Your task to perform on an android device: change the clock display to analog Image 0: 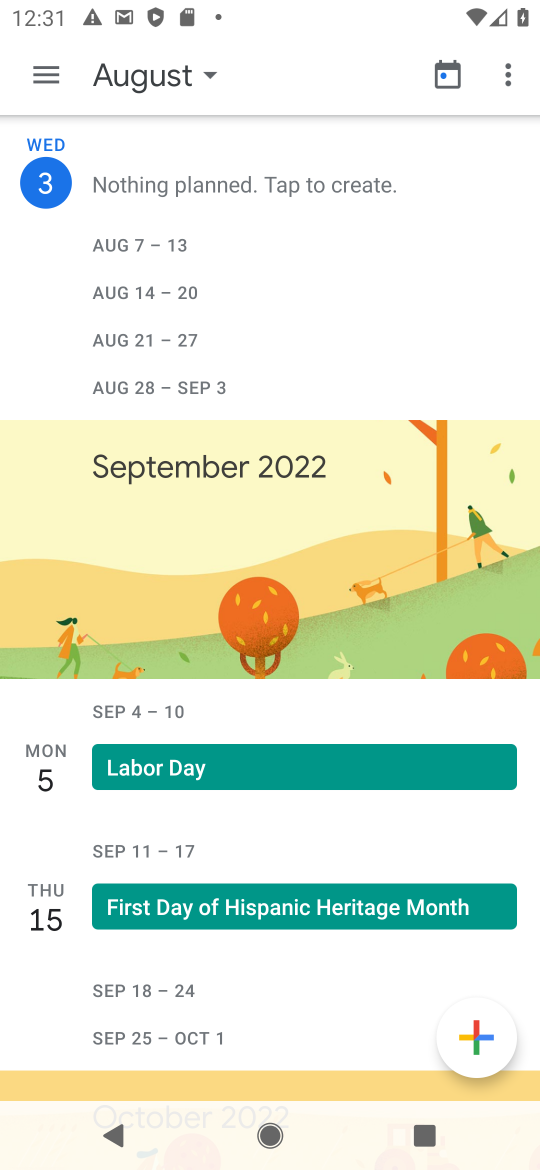
Step 0: drag from (262, 981) to (262, 231)
Your task to perform on an android device: change the clock display to analog Image 1: 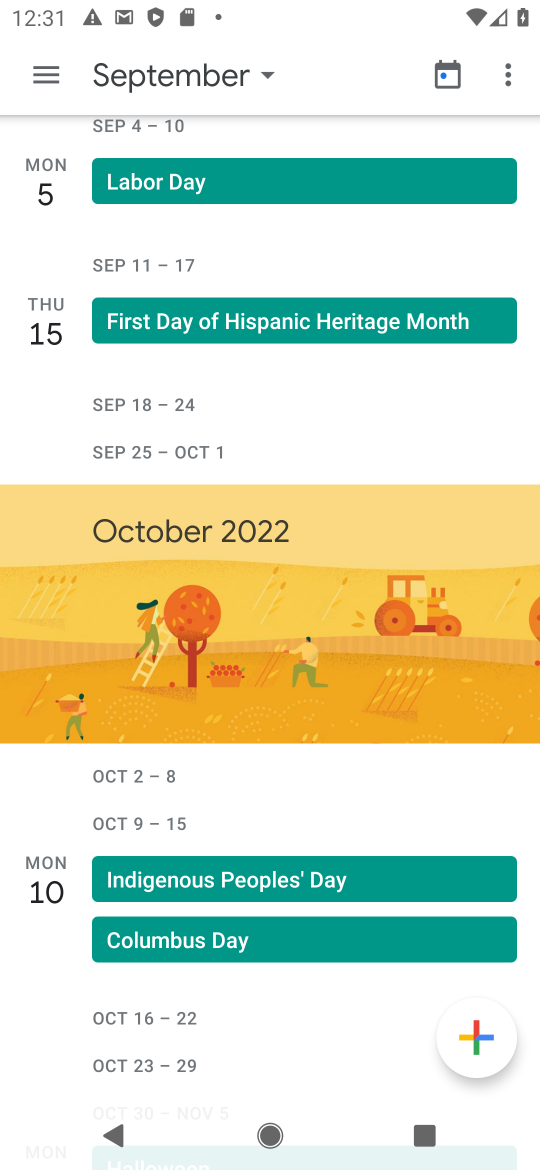
Step 1: drag from (288, 870) to (268, 449)
Your task to perform on an android device: change the clock display to analog Image 2: 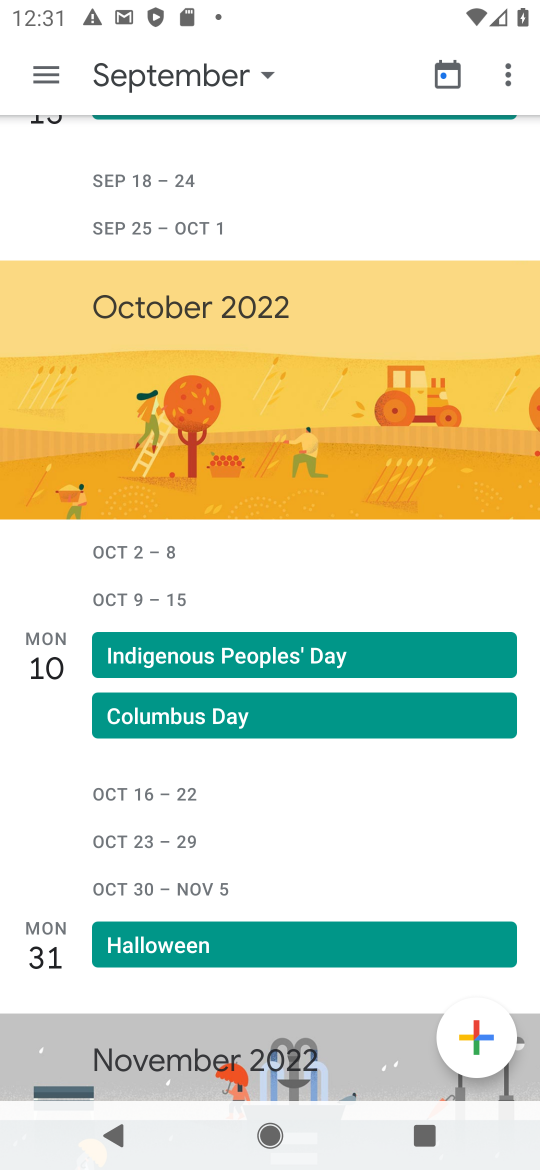
Step 2: drag from (298, 867) to (309, 271)
Your task to perform on an android device: change the clock display to analog Image 3: 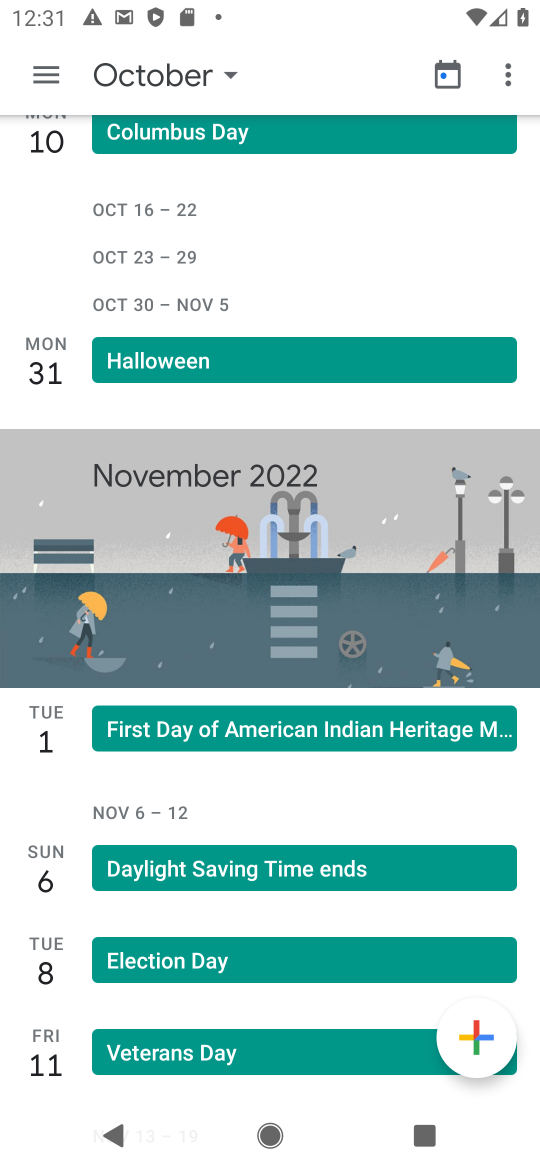
Step 3: drag from (311, 269) to (338, 1091)
Your task to perform on an android device: change the clock display to analog Image 4: 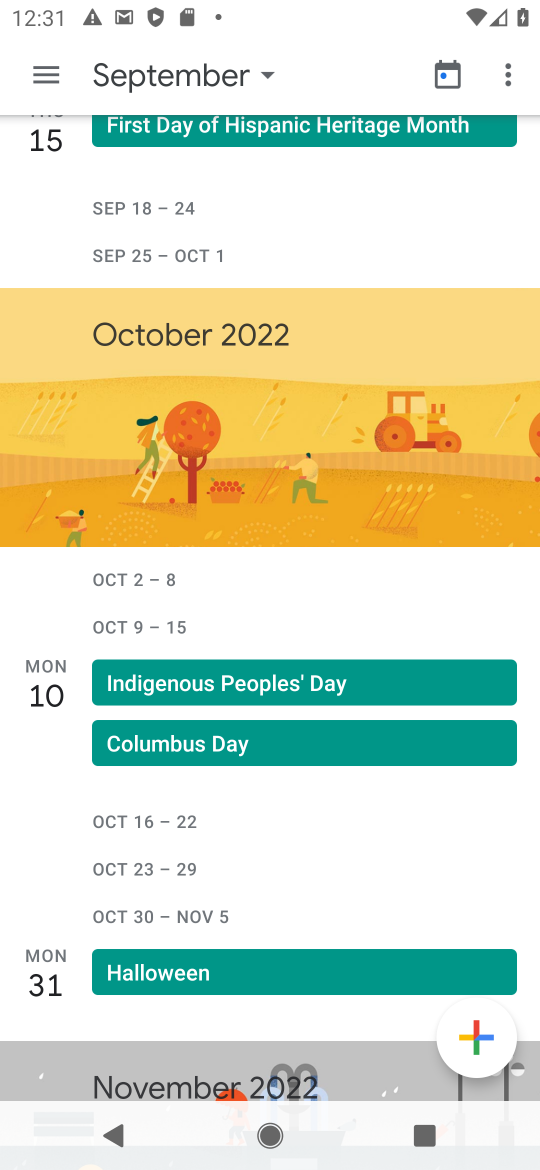
Step 4: click (223, 85)
Your task to perform on an android device: change the clock display to analog Image 5: 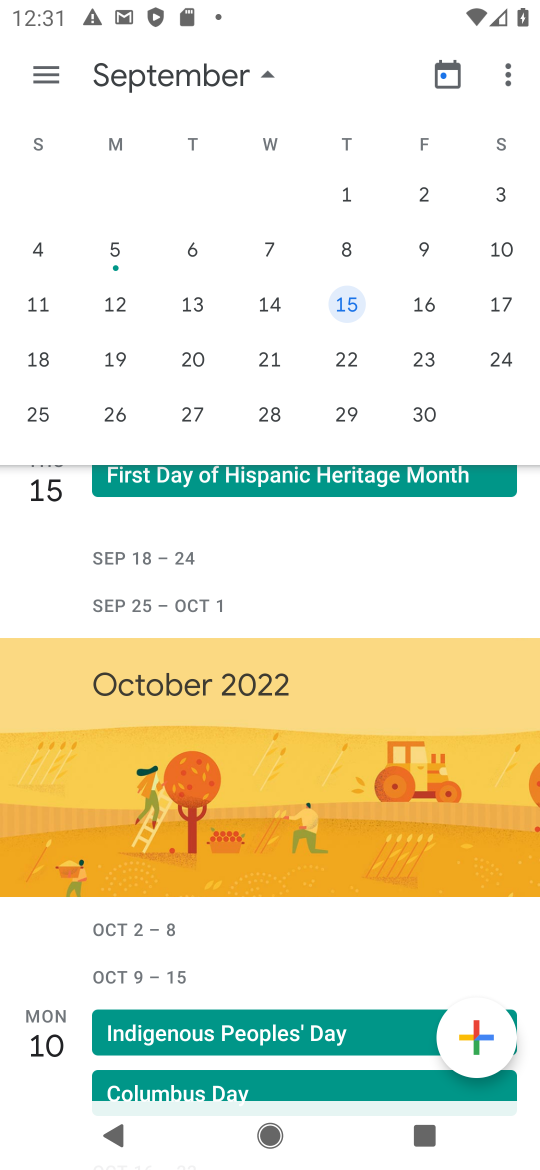
Step 5: press home button
Your task to perform on an android device: change the clock display to analog Image 6: 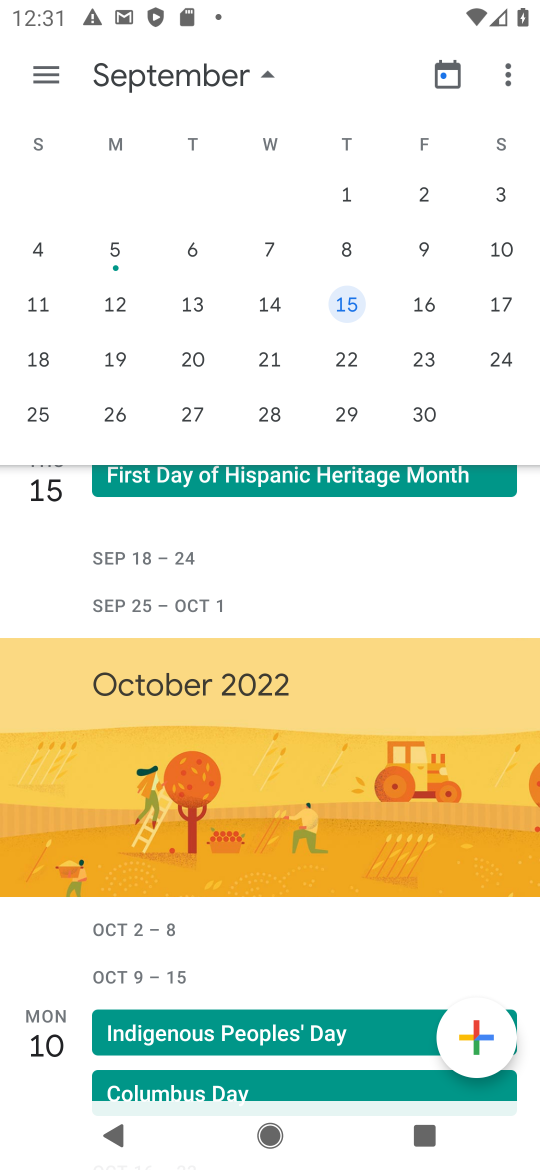
Step 6: drag from (262, 935) to (357, 3)
Your task to perform on an android device: change the clock display to analog Image 7: 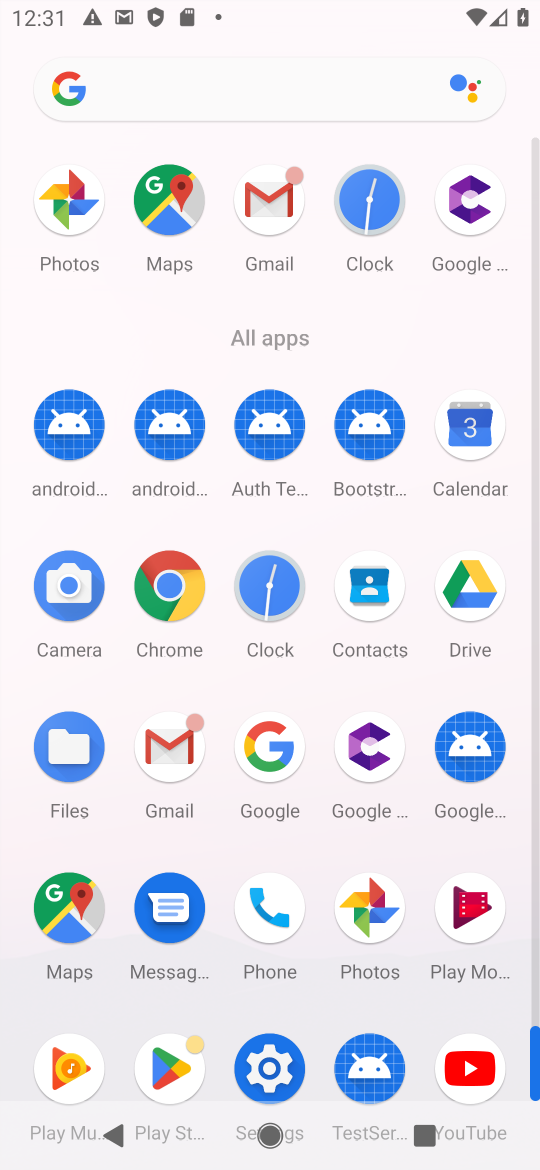
Step 7: click (268, 1061)
Your task to perform on an android device: change the clock display to analog Image 8: 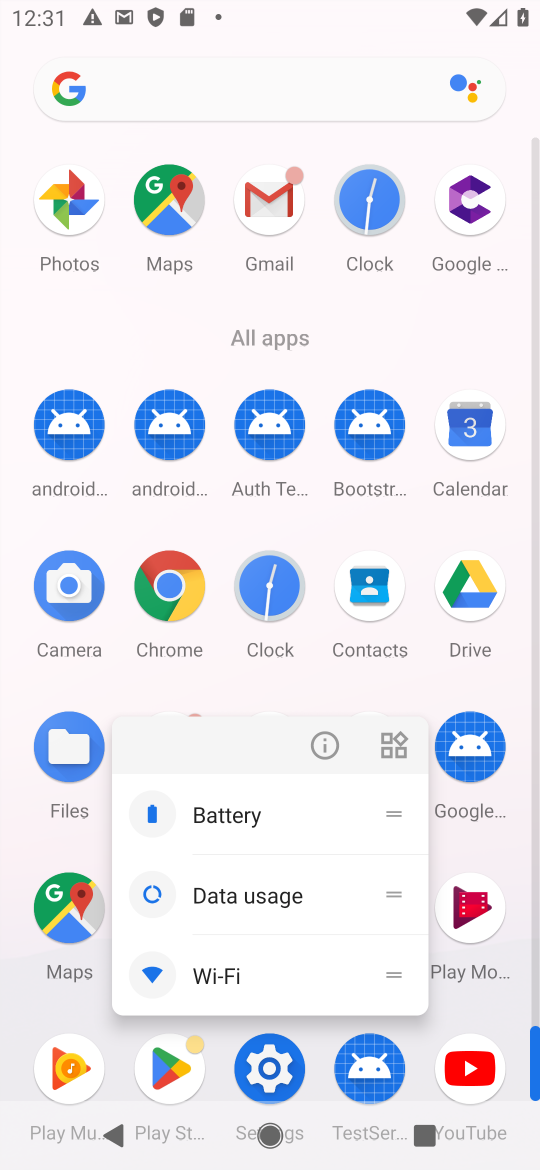
Step 8: click (266, 596)
Your task to perform on an android device: change the clock display to analog Image 9: 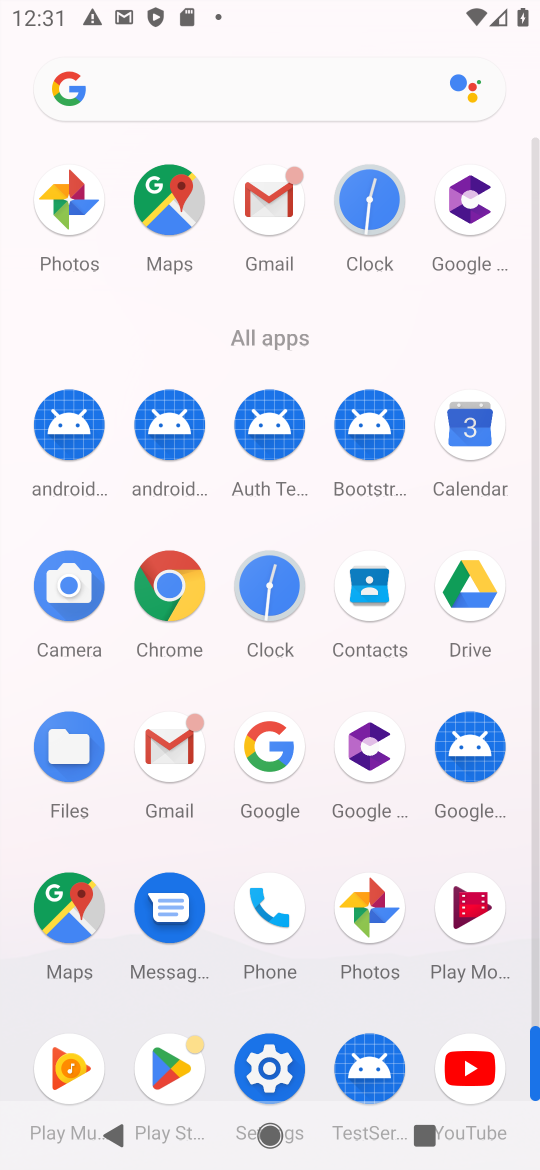
Step 9: click (273, 1054)
Your task to perform on an android device: change the clock display to analog Image 10: 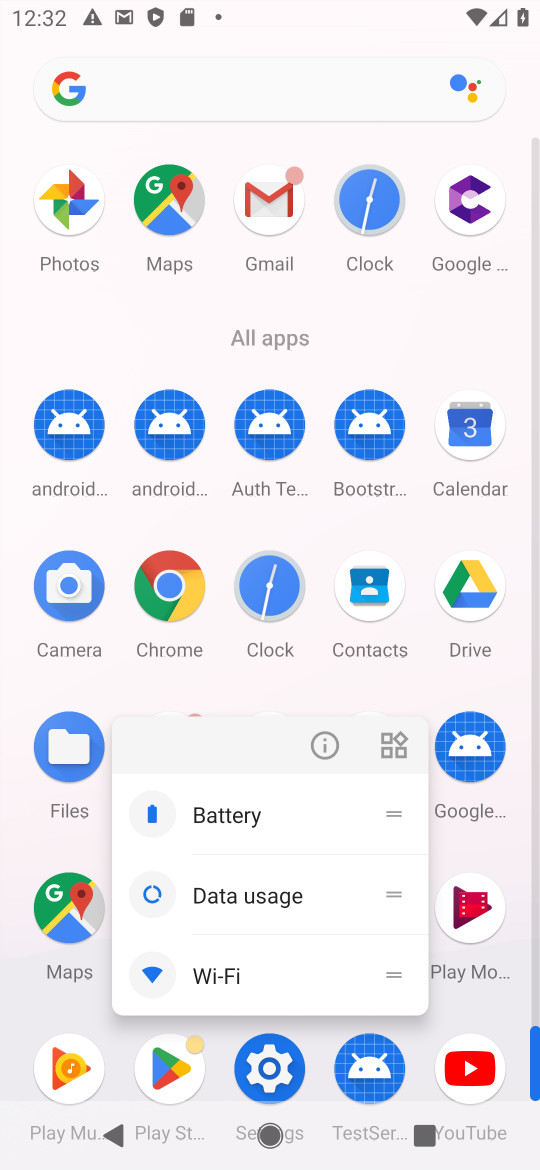
Step 10: click (315, 752)
Your task to perform on an android device: change the clock display to analog Image 11: 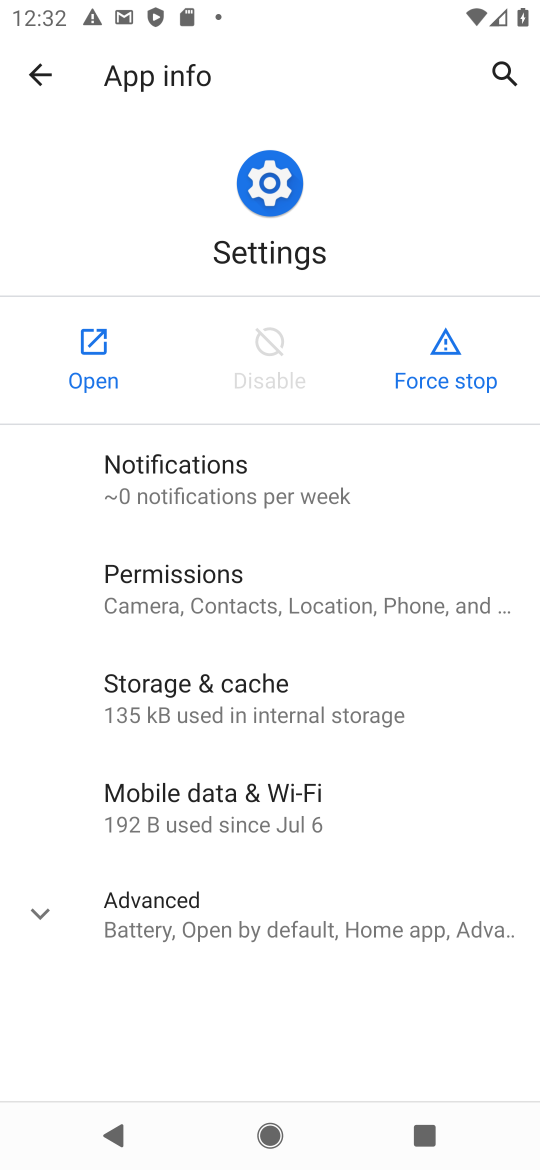
Step 11: click (75, 331)
Your task to perform on an android device: change the clock display to analog Image 12: 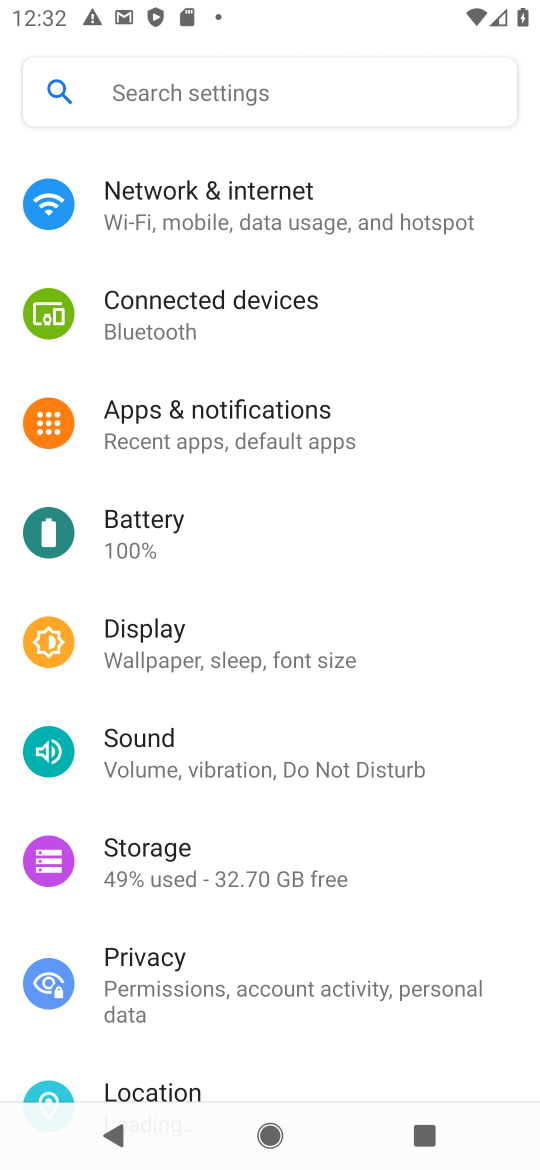
Step 12: click (235, 464)
Your task to perform on an android device: change the clock display to analog Image 13: 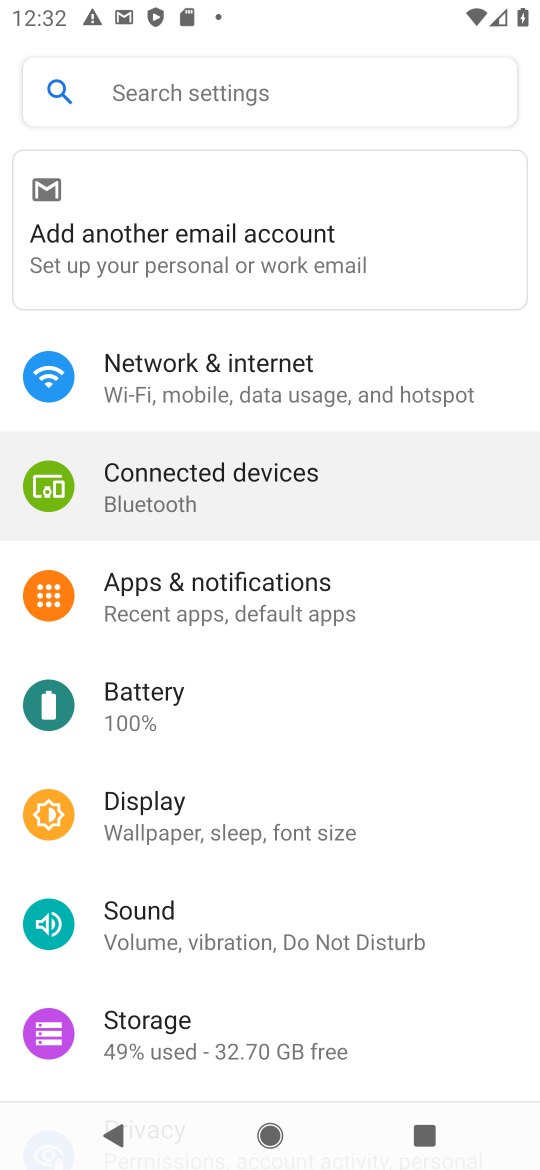
Step 13: drag from (271, 1035) to (331, 284)
Your task to perform on an android device: change the clock display to analog Image 14: 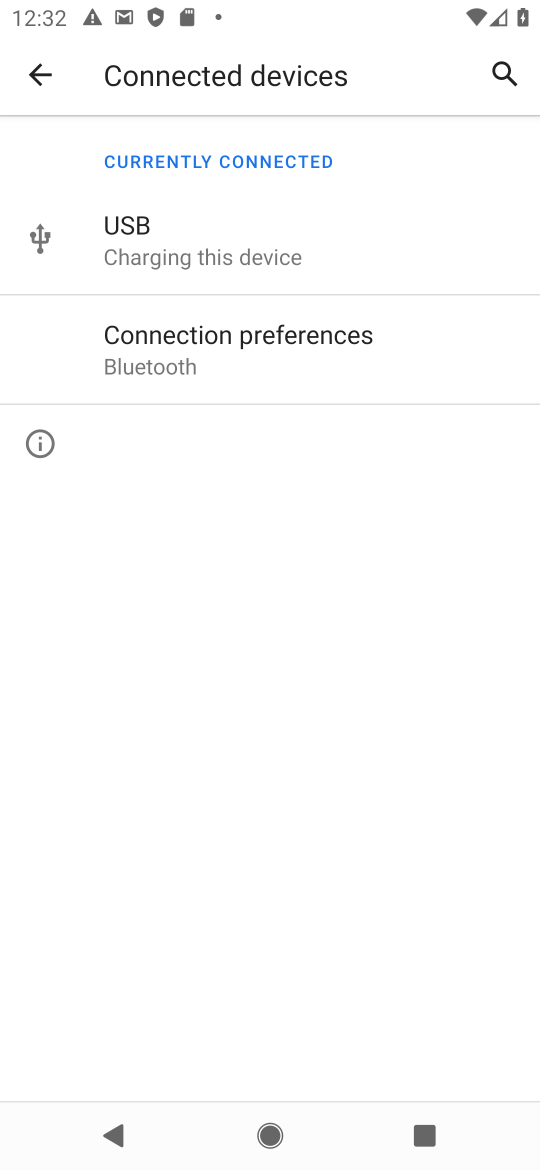
Step 14: press back button
Your task to perform on an android device: change the clock display to analog Image 15: 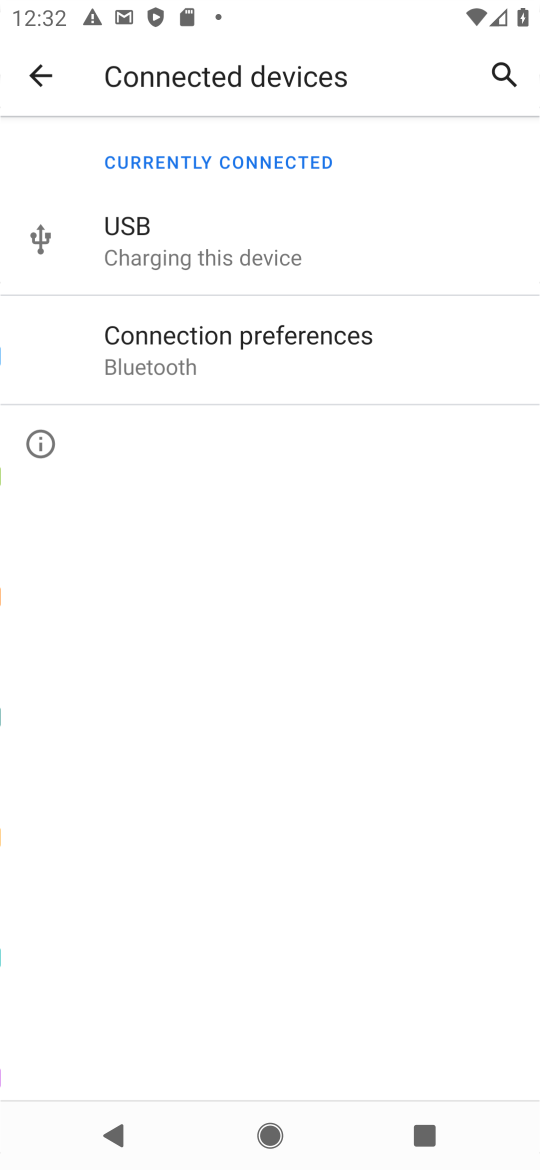
Step 15: click (303, 415)
Your task to perform on an android device: change the clock display to analog Image 16: 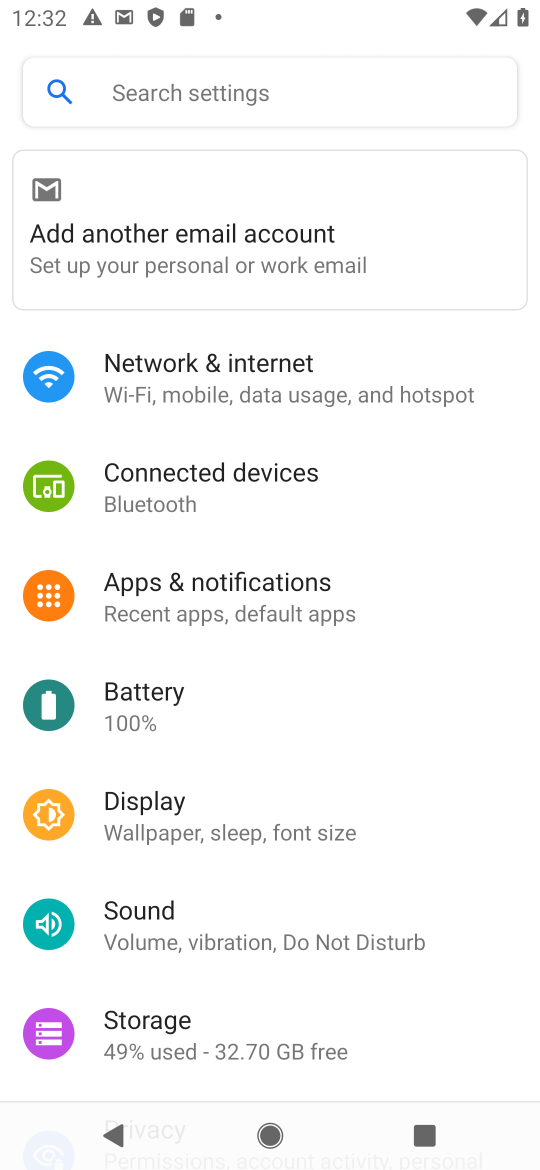
Step 16: drag from (329, 806) to (338, 433)
Your task to perform on an android device: change the clock display to analog Image 17: 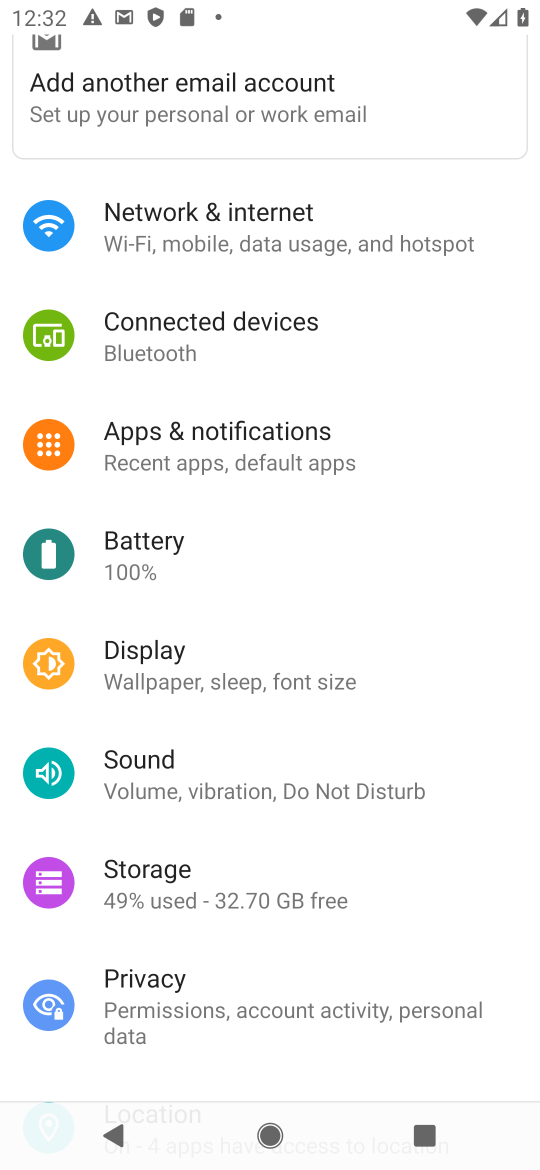
Step 17: drag from (234, 921) to (265, 689)
Your task to perform on an android device: change the clock display to analog Image 18: 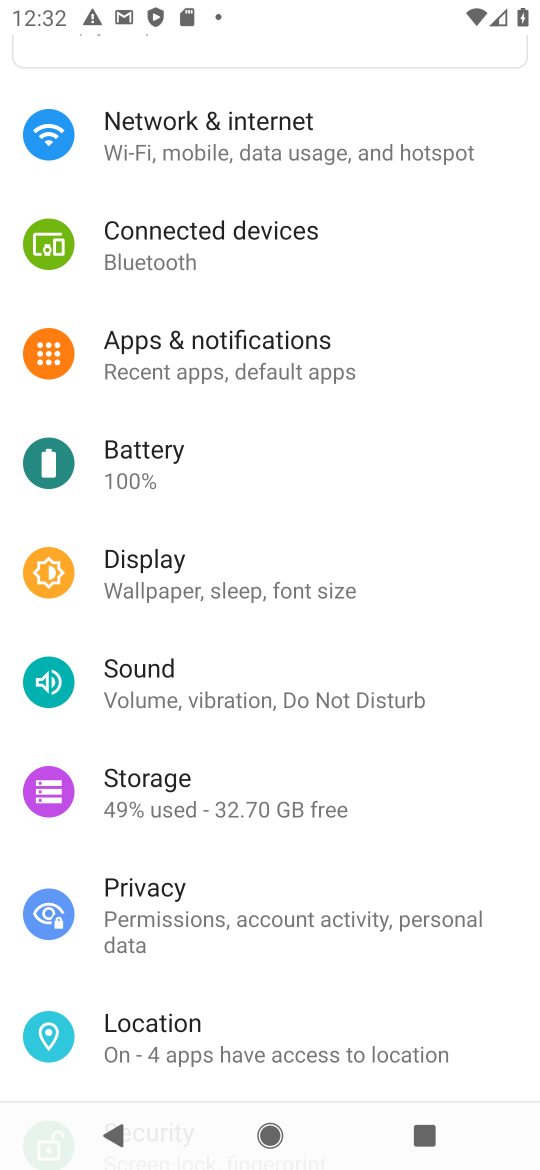
Step 18: drag from (216, 638) to (237, 1133)
Your task to perform on an android device: change the clock display to analog Image 19: 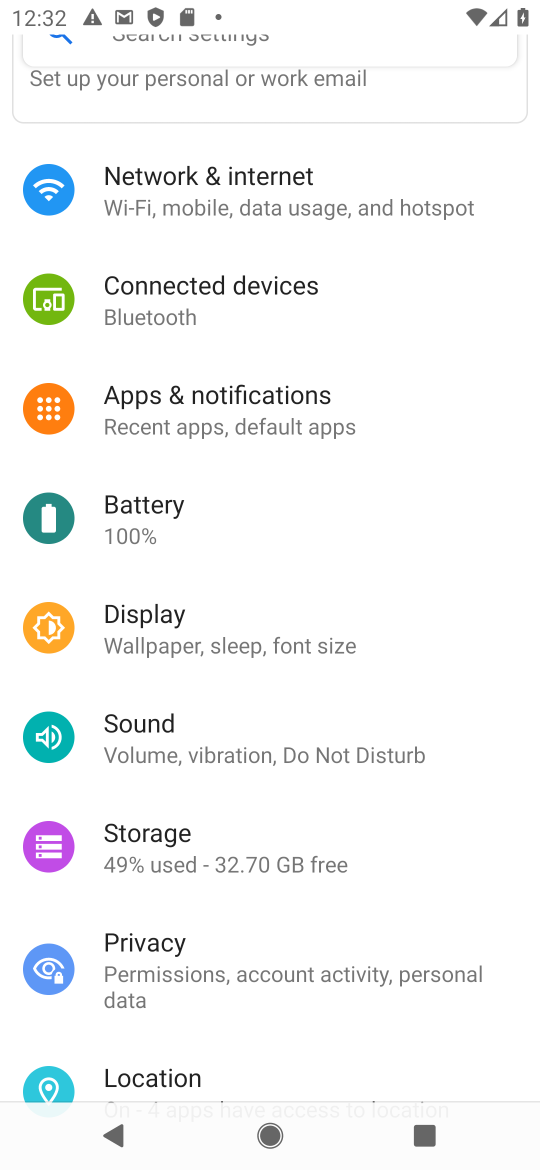
Step 19: drag from (312, 820) to (502, 1167)
Your task to perform on an android device: change the clock display to analog Image 20: 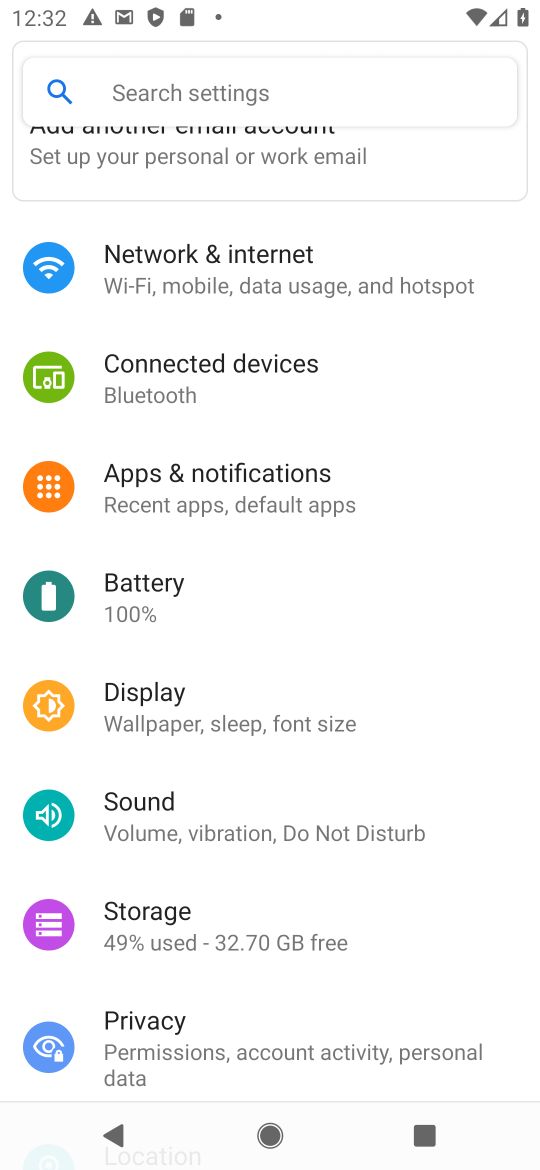
Step 20: drag from (307, 1027) to (321, 451)
Your task to perform on an android device: change the clock display to analog Image 21: 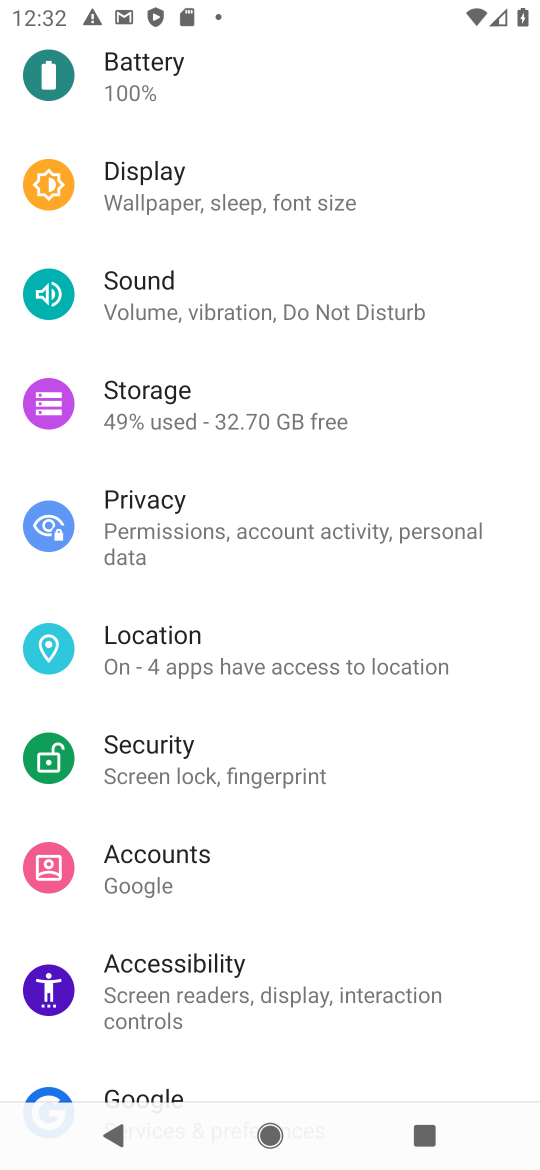
Step 21: drag from (346, 663) to (431, 1166)
Your task to perform on an android device: change the clock display to analog Image 22: 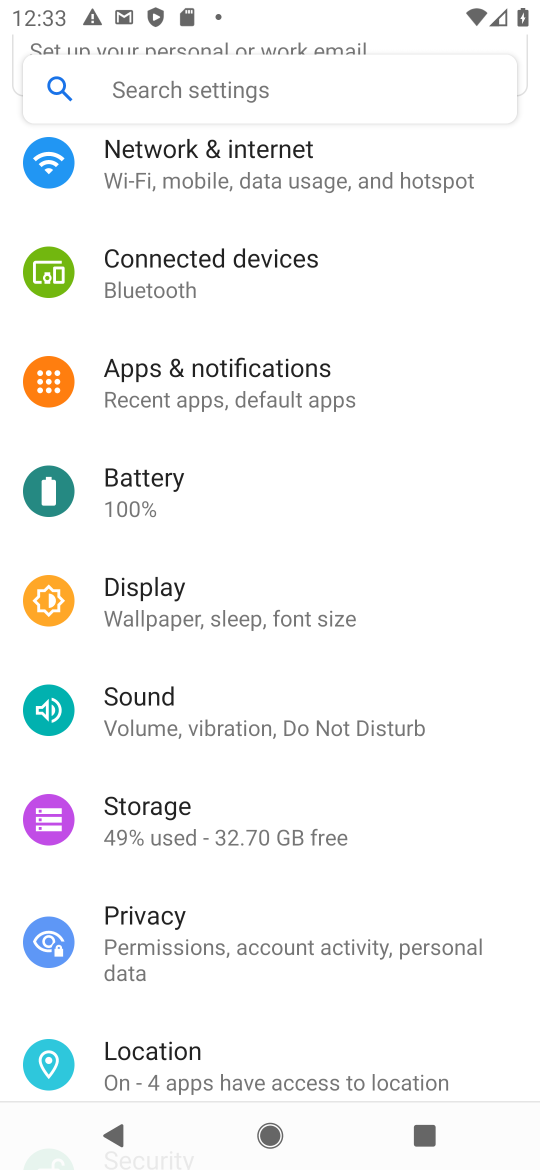
Step 22: click (201, 605)
Your task to perform on an android device: change the clock display to analog Image 23: 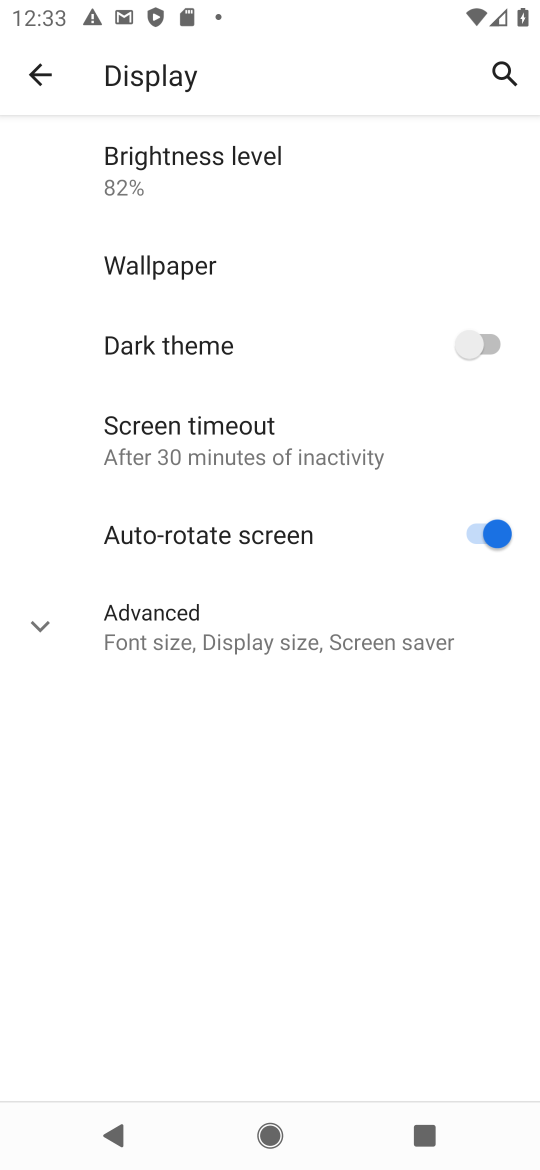
Step 23: press home button
Your task to perform on an android device: change the clock display to analog Image 24: 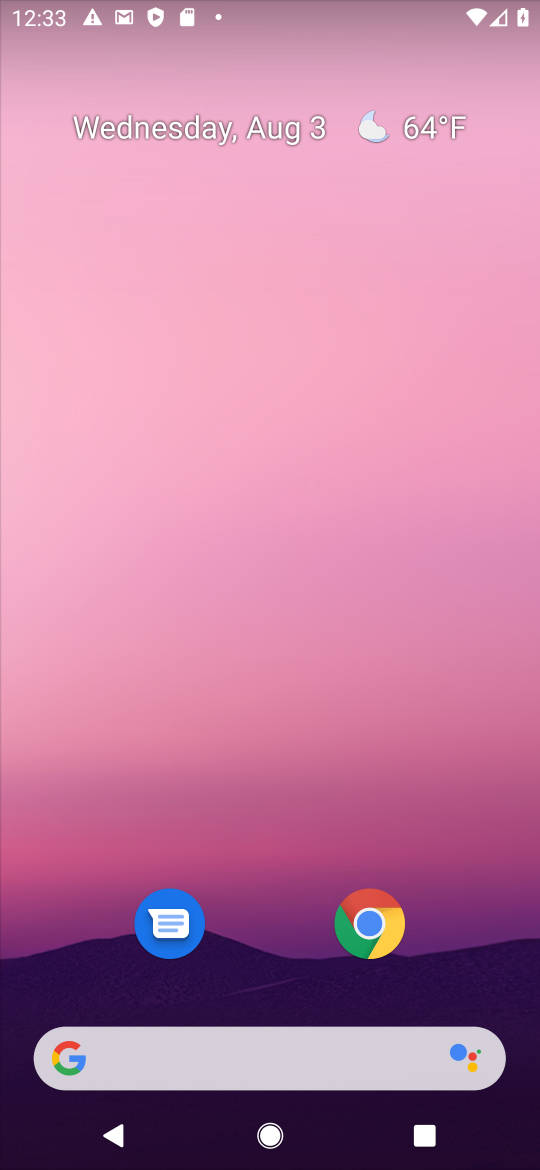
Step 24: drag from (236, 983) to (272, 17)
Your task to perform on an android device: change the clock display to analog Image 25: 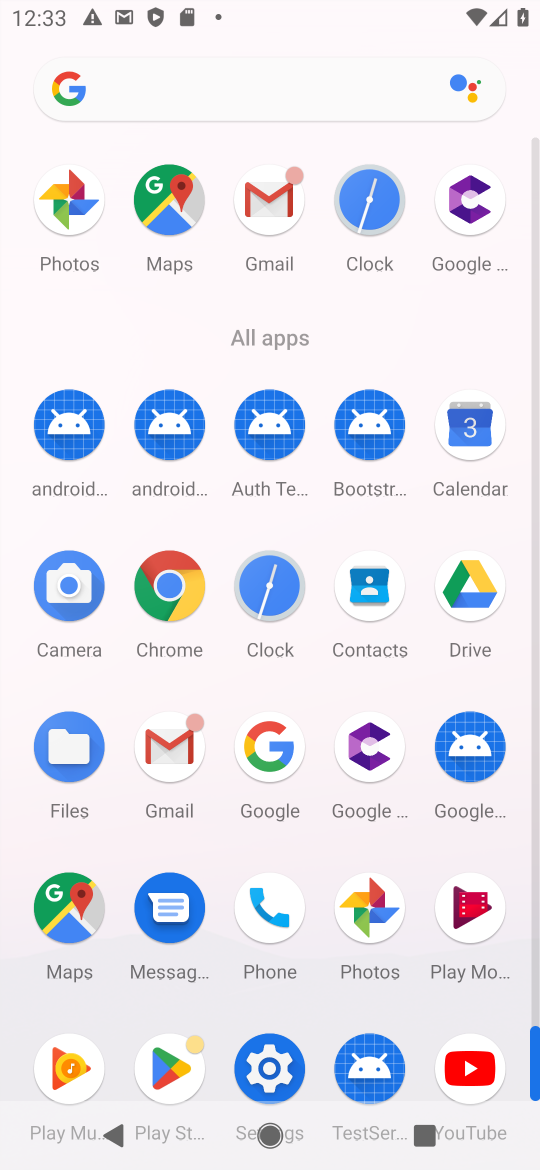
Step 25: drag from (312, 985) to (293, 388)
Your task to perform on an android device: change the clock display to analog Image 26: 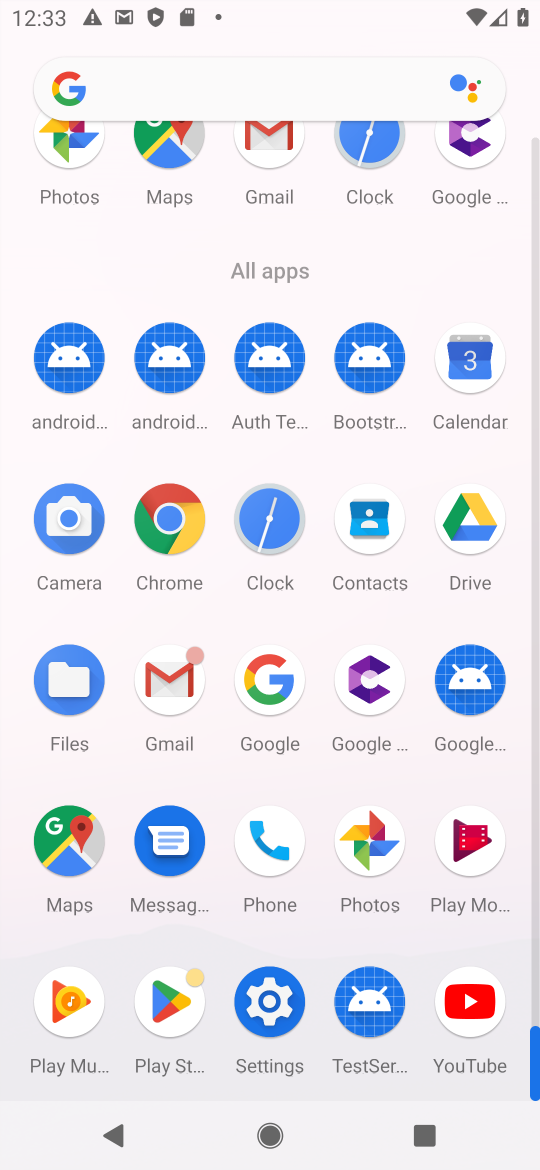
Step 26: click (275, 521)
Your task to perform on an android device: change the clock display to analog Image 27: 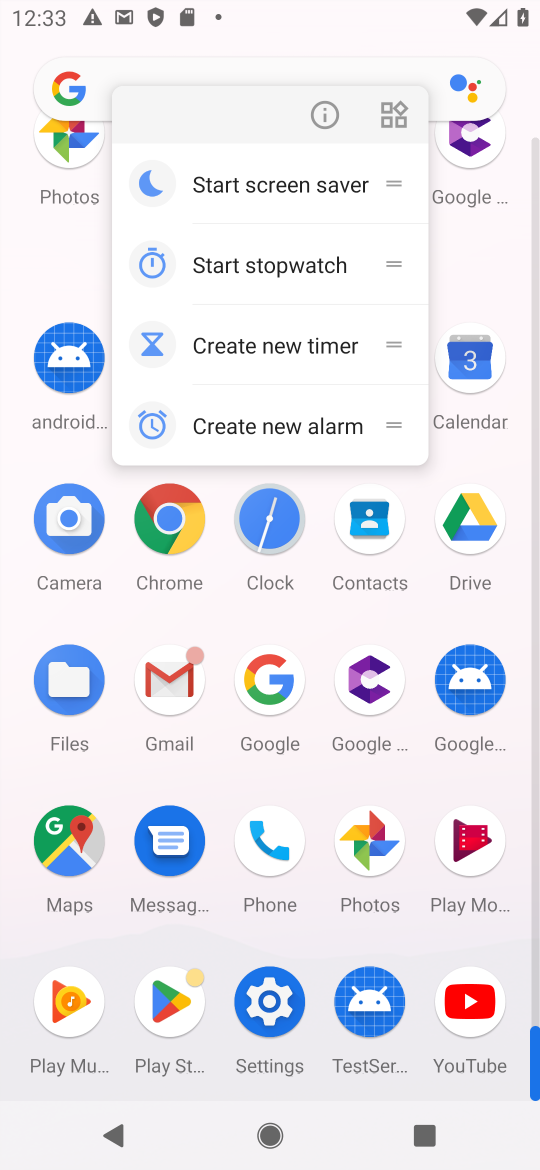
Step 27: click (335, 111)
Your task to perform on an android device: change the clock display to analog Image 28: 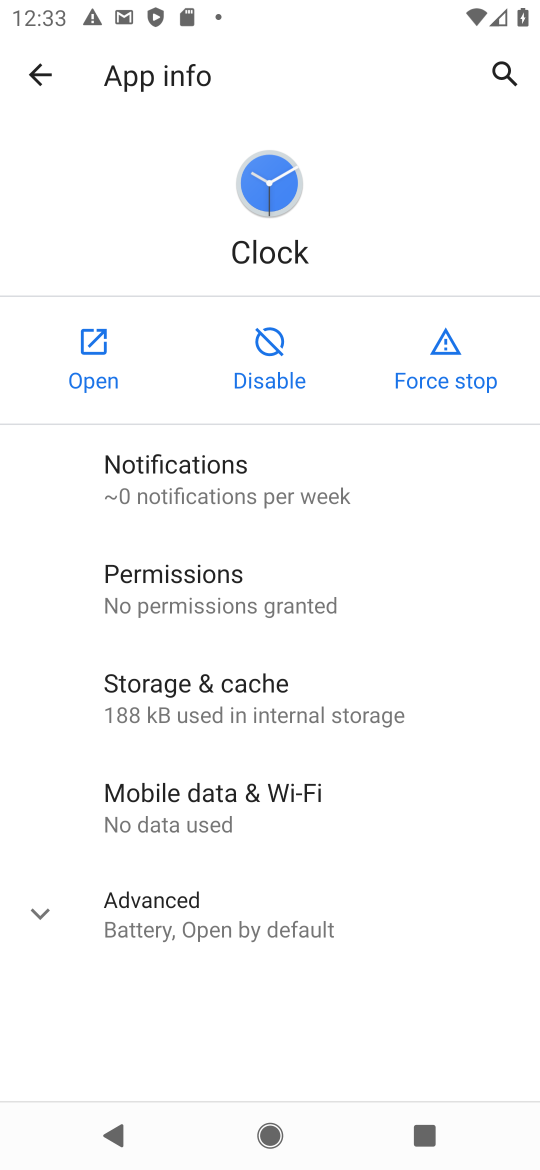
Step 28: click (47, 378)
Your task to perform on an android device: change the clock display to analog Image 29: 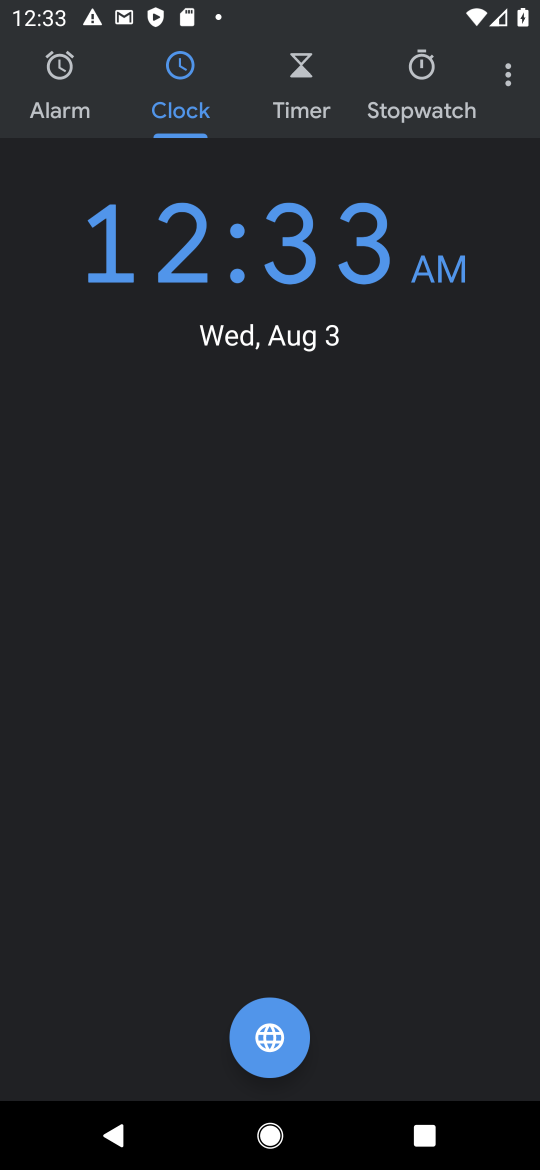
Step 29: click (503, 83)
Your task to perform on an android device: change the clock display to analog Image 30: 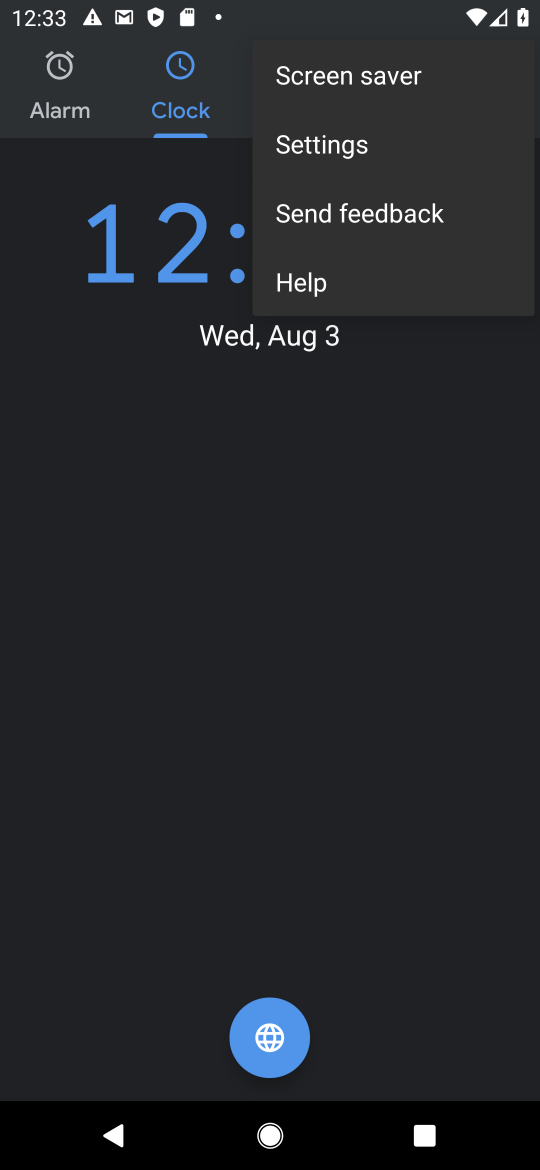
Step 30: click (282, 154)
Your task to perform on an android device: change the clock display to analog Image 31: 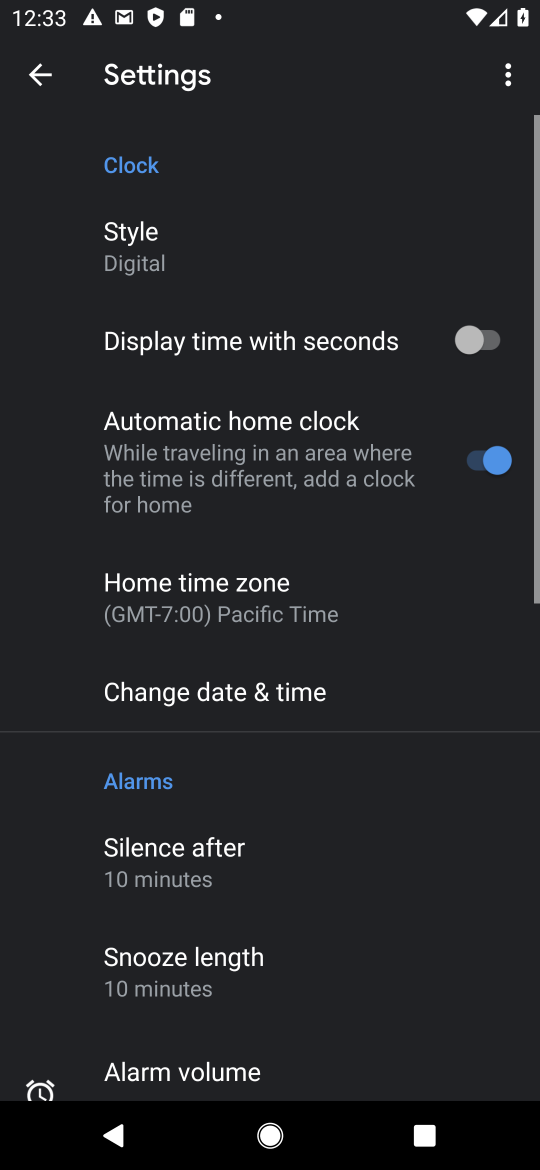
Step 31: click (138, 270)
Your task to perform on an android device: change the clock display to analog Image 32: 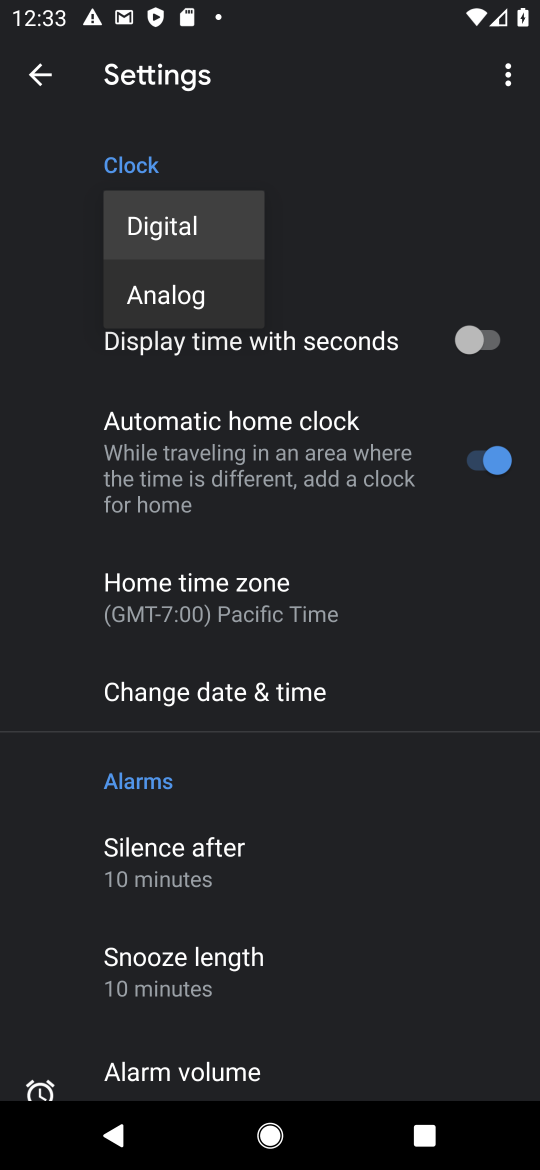
Step 32: click (170, 306)
Your task to perform on an android device: change the clock display to analog Image 33: 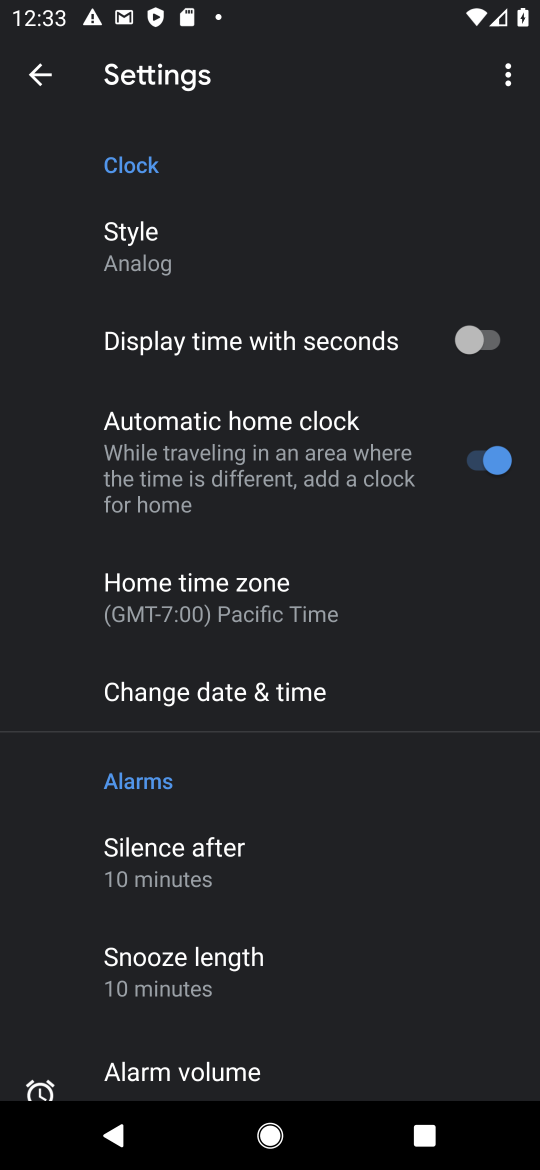
Step 33: task complete